Your task to perform on an android device: install app "Pluto TV - Live TV and Movies" Image 0: 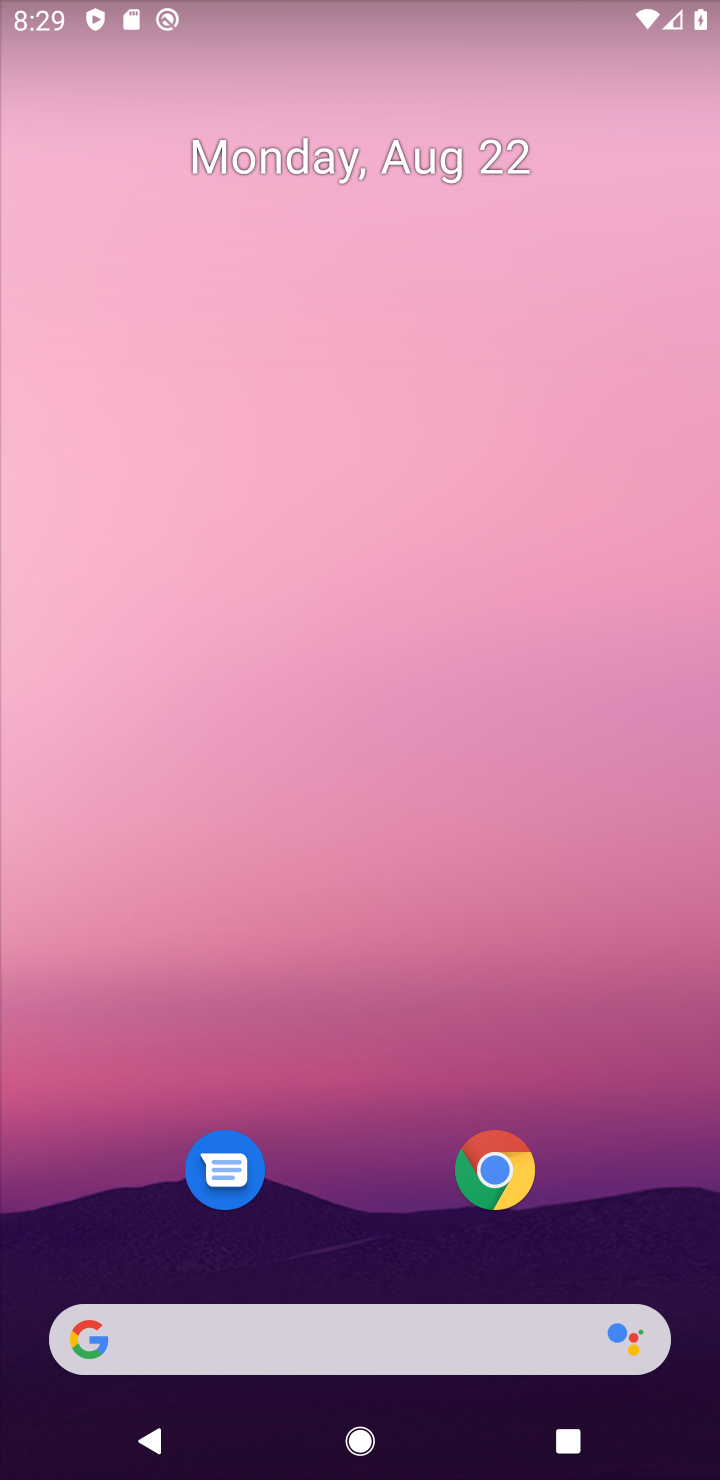
Step 0: drag from (346, 1144) to (487, 49)
Your task to perform on an android device: install app "Pluto TV - Live TV and Movies" Image 1: 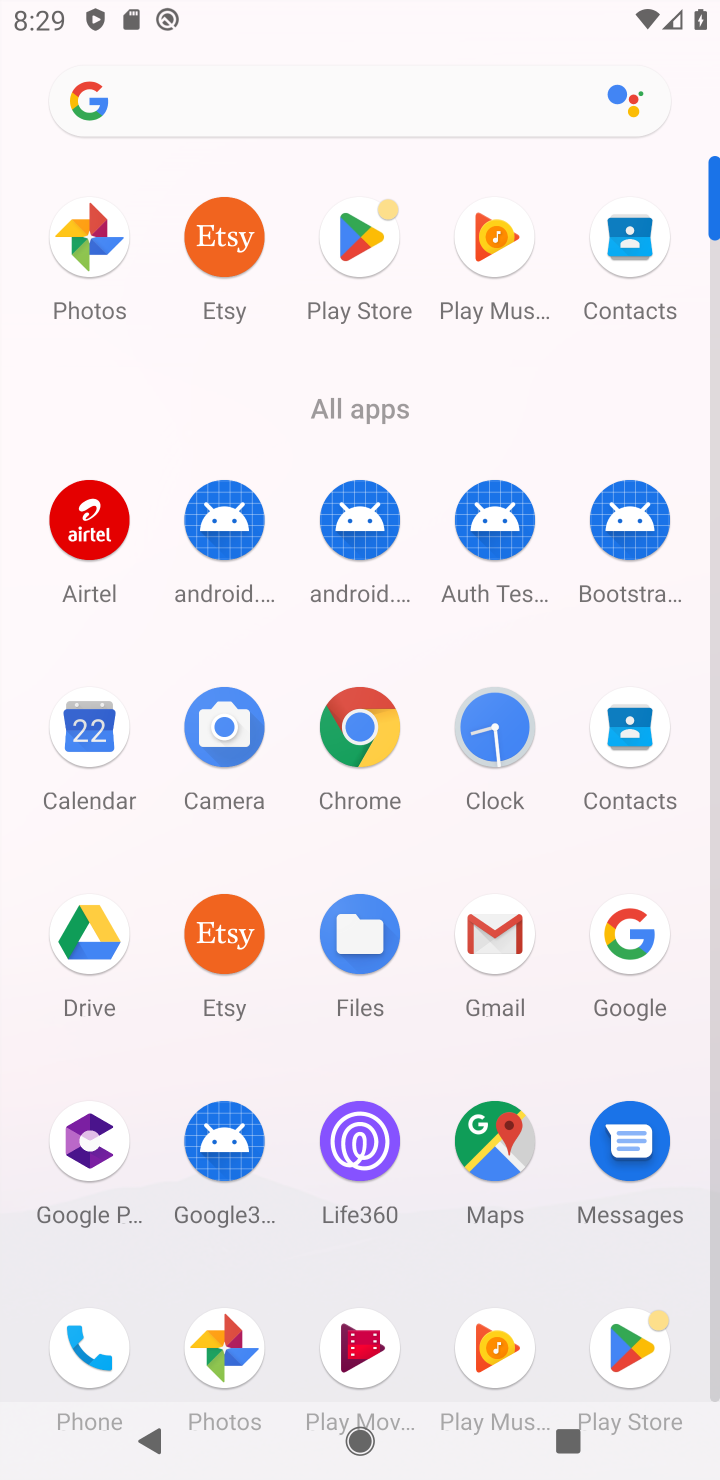
Step 1: click (363, 240)
Your task to perform on an android device: install app "Pluto TV - Live TV and Movies" Image 2: 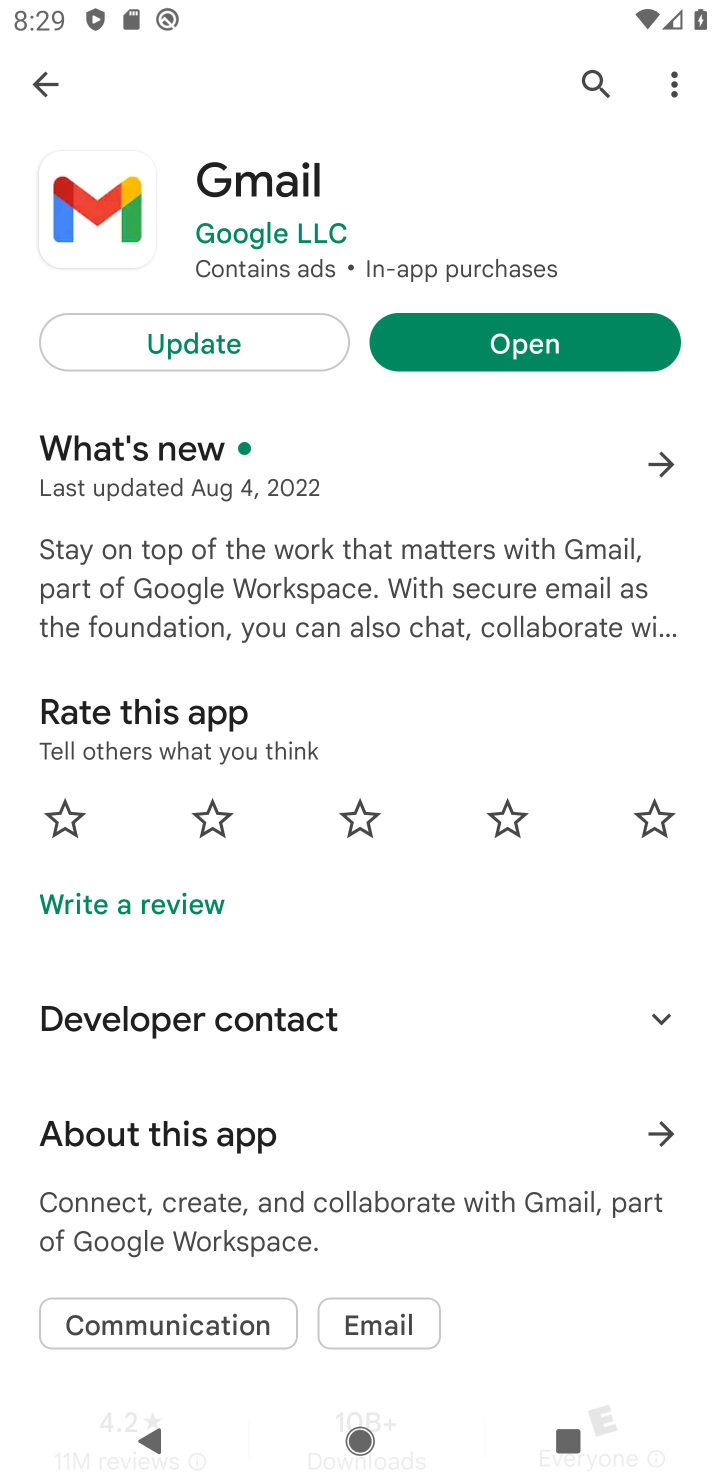
Step 2: click (591, 73)
Your task to perform on an android device: install app "Pluto TV - Live TV and Movies" Image 3: 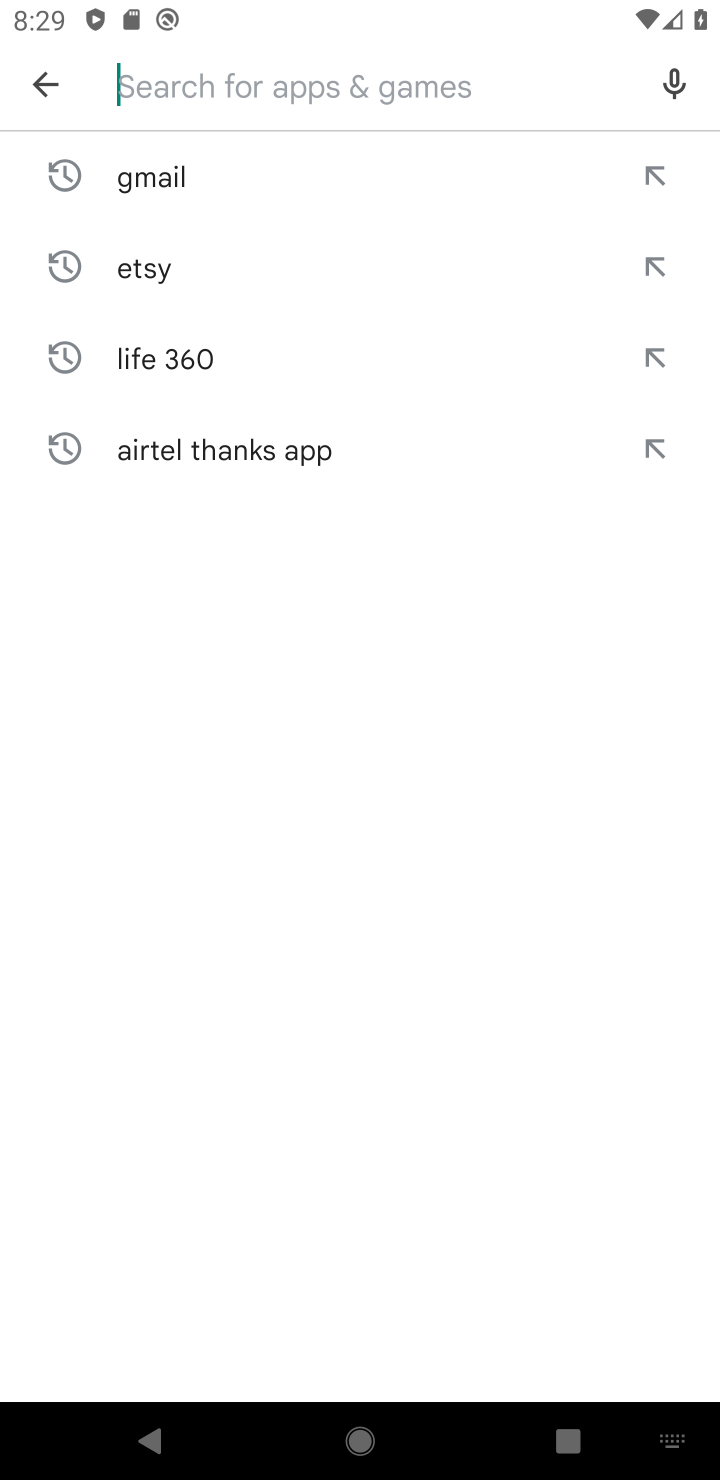
Step 3: click (227, 85)
Your task to perform on an android device: install app "Pluto TV - Live TV and Movies" Image 4: 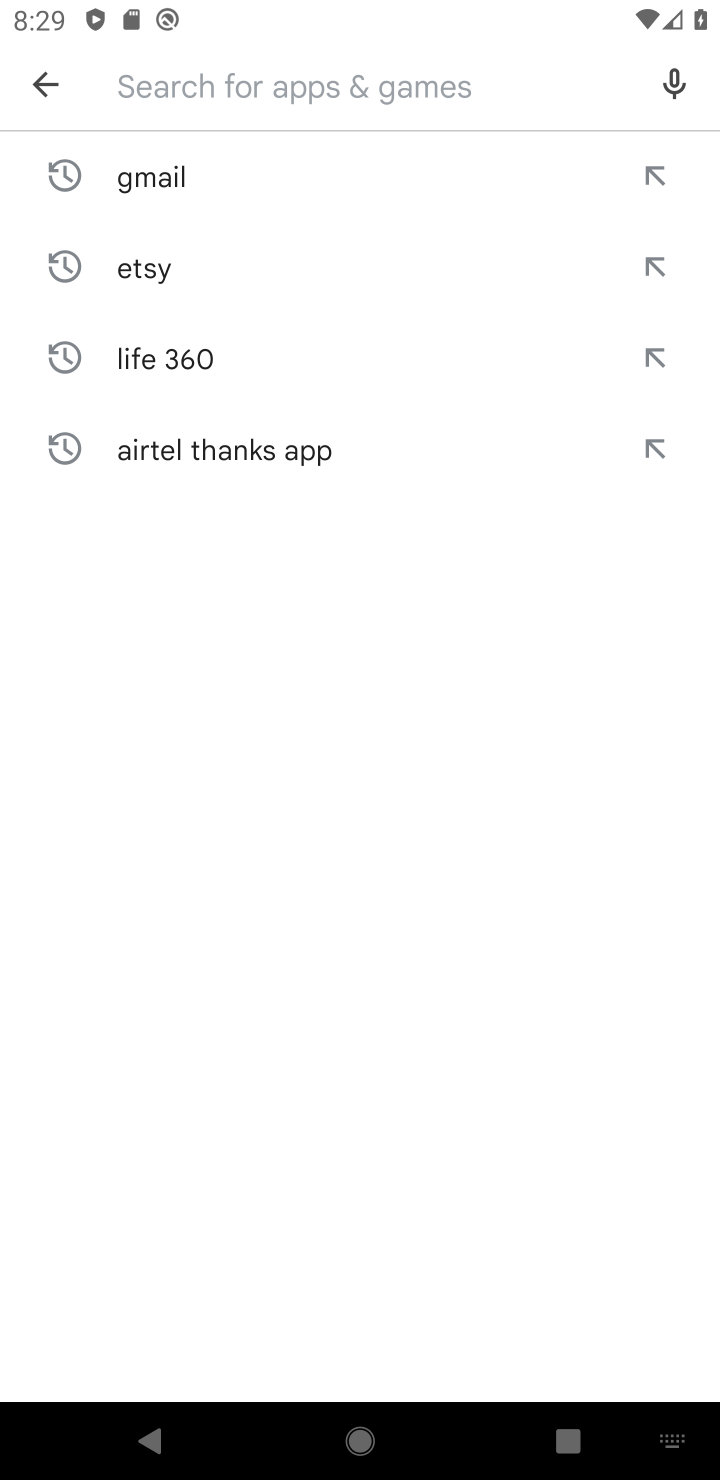
Step 4: click (187, 75)
Your task to perform on an android device: install app "Pluto TV - Live TV and Movies" Image 5: 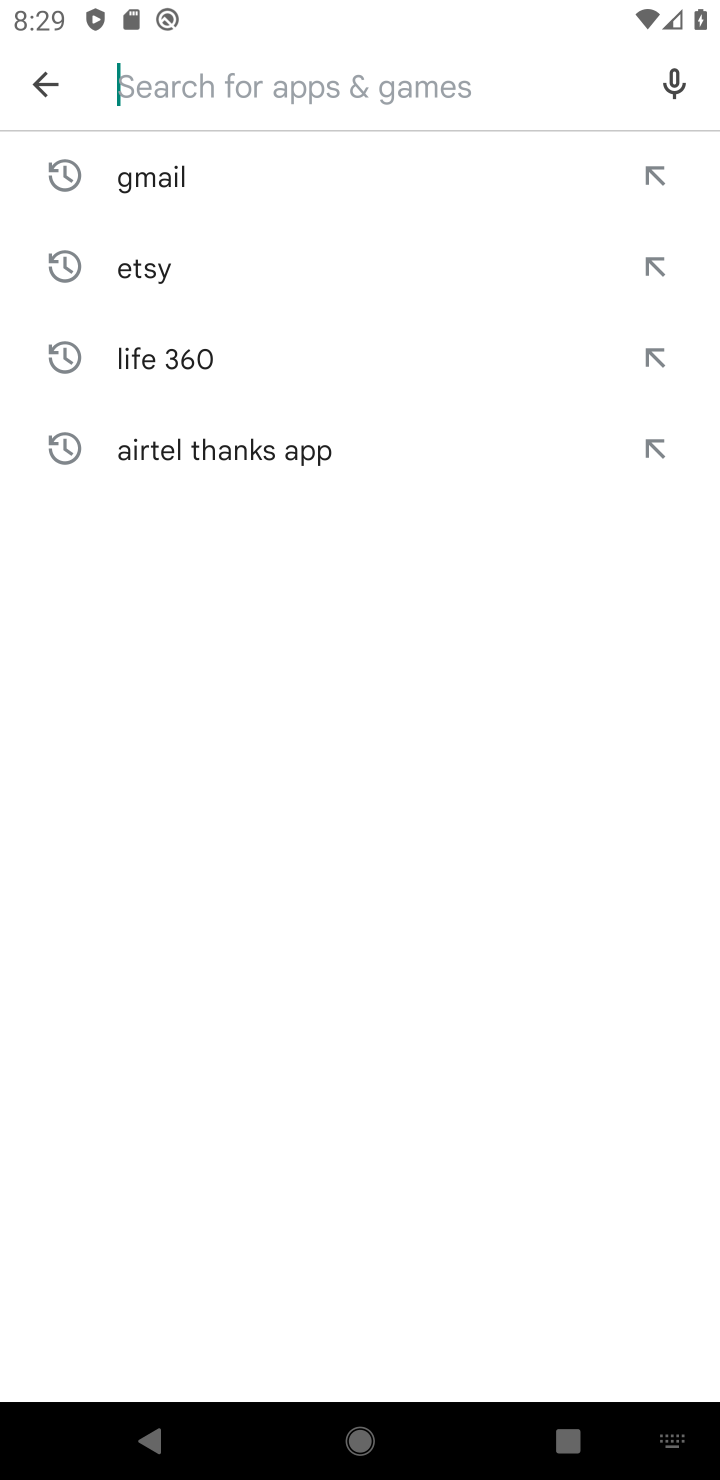
Step 5: type "Pluto TV"
Your task to perform on an android device: install app "Pluto TV - Live TV and Movies" Image 6: 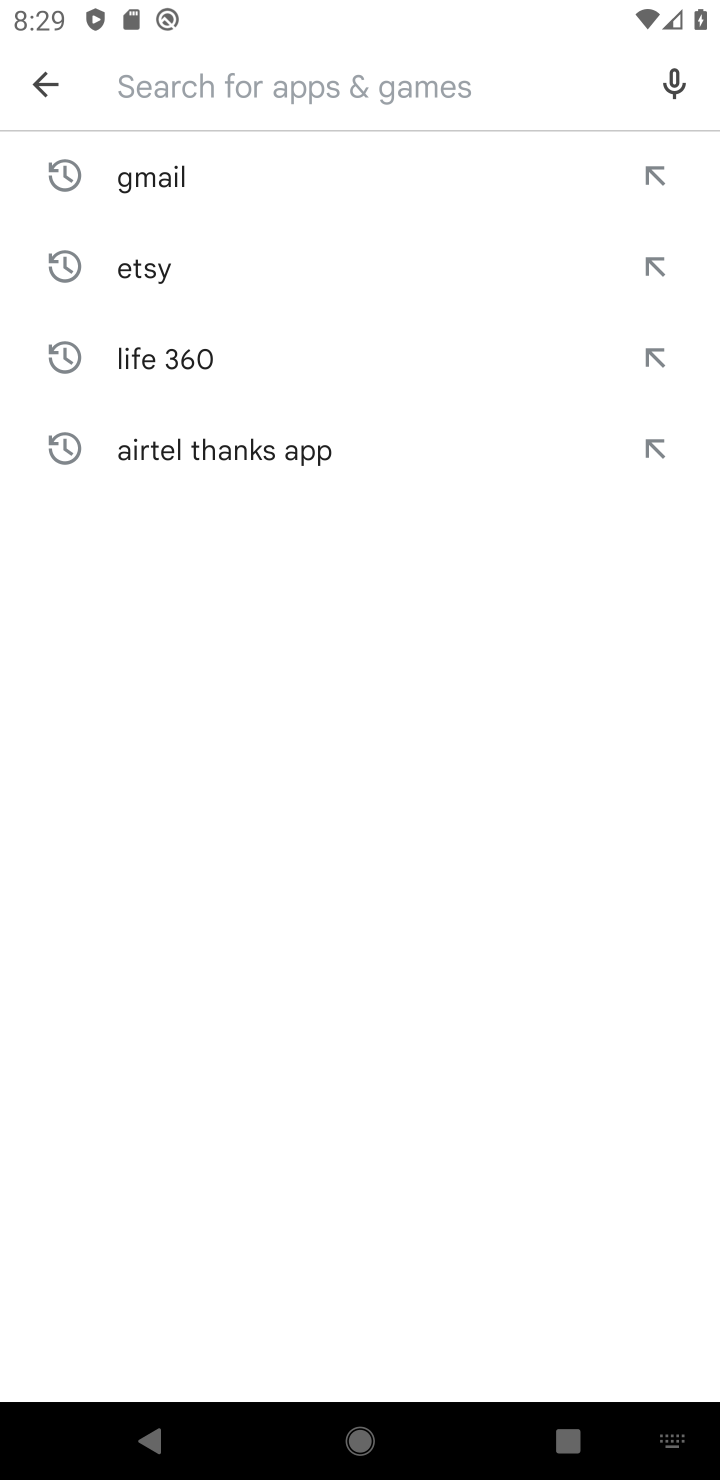
Step 6: click (357, 1013)
Your task to perform on an android device: install app "Pluto TV - Live TV and Movies" Image 7: 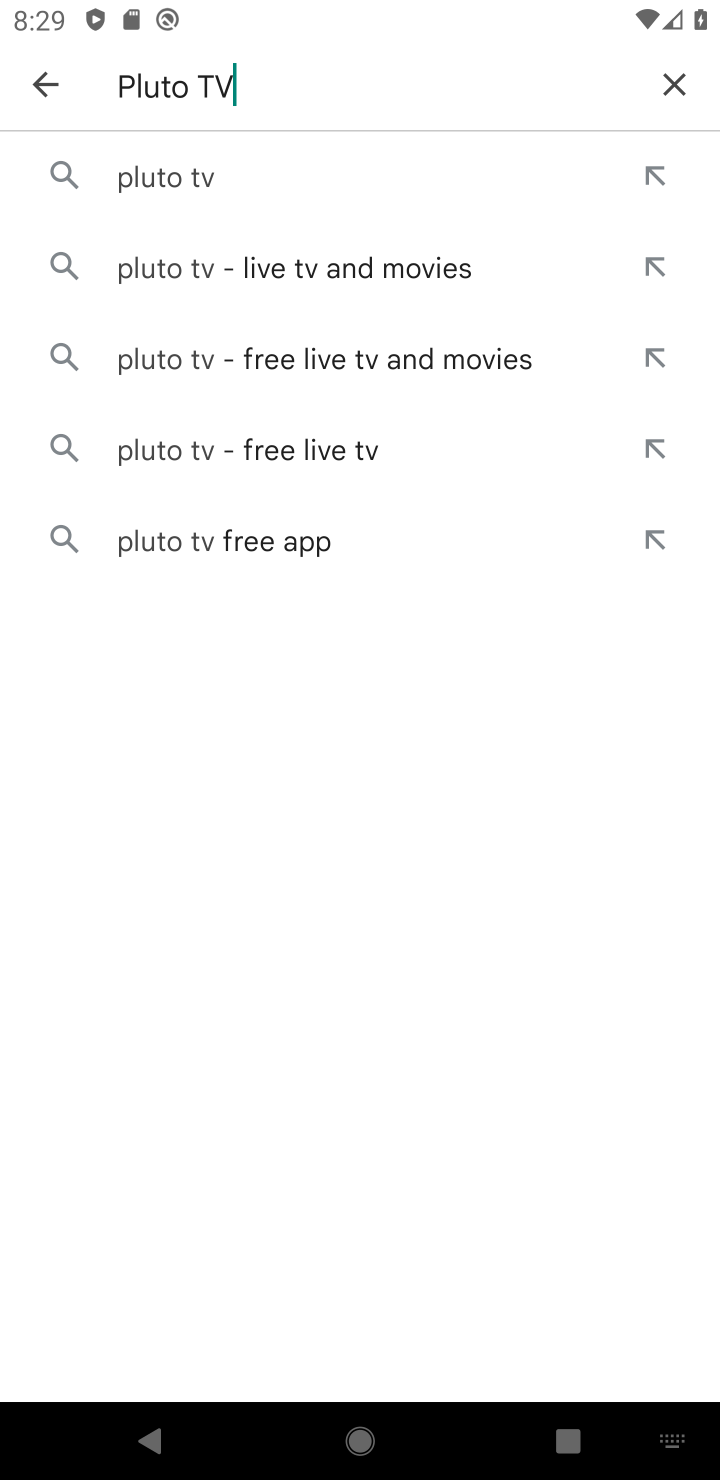
Step 7: click (176, 179)
Your task to perform on an android device: install app "Pluto TV - Live TV and Movies" Image 8: 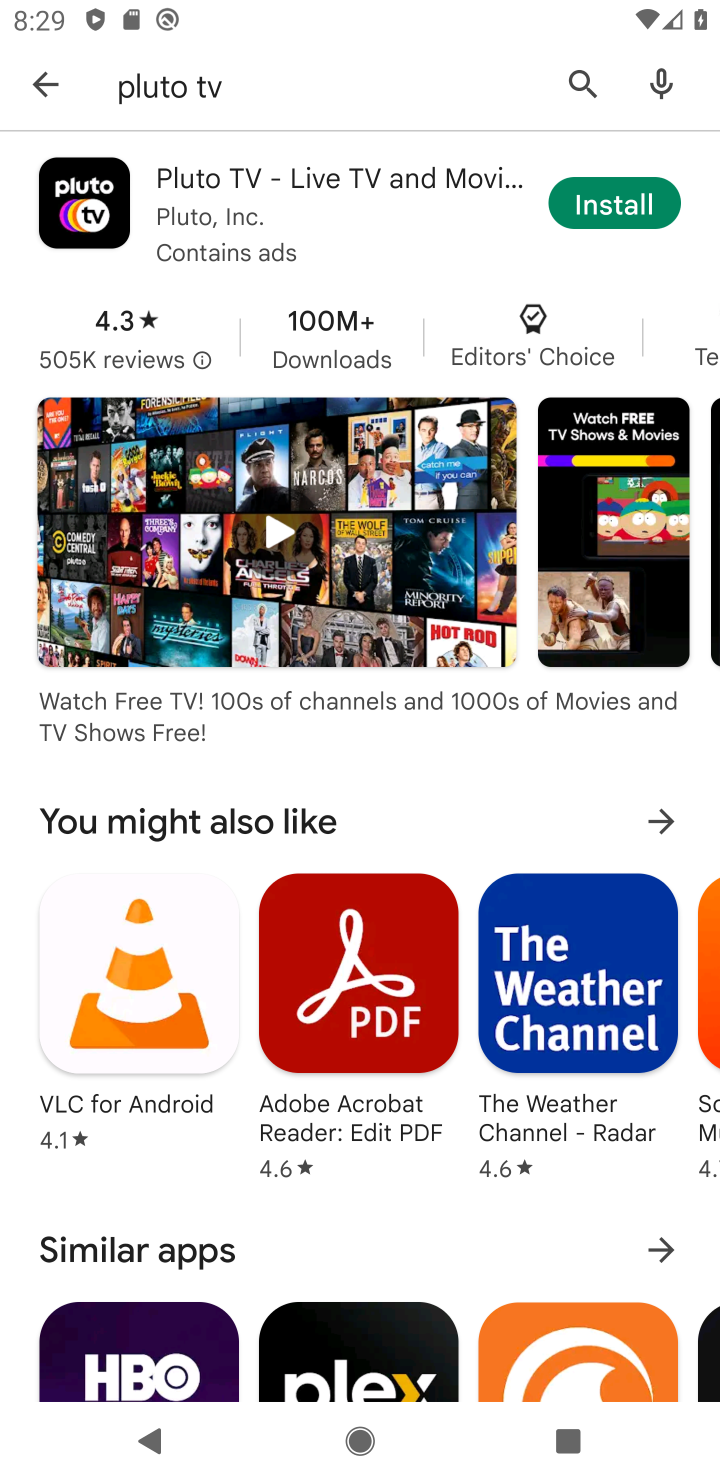
Step 8: click (602, 201)
Your task to perform on an android device: install app "Pluto TV - Live TV and Movies" Image 9: 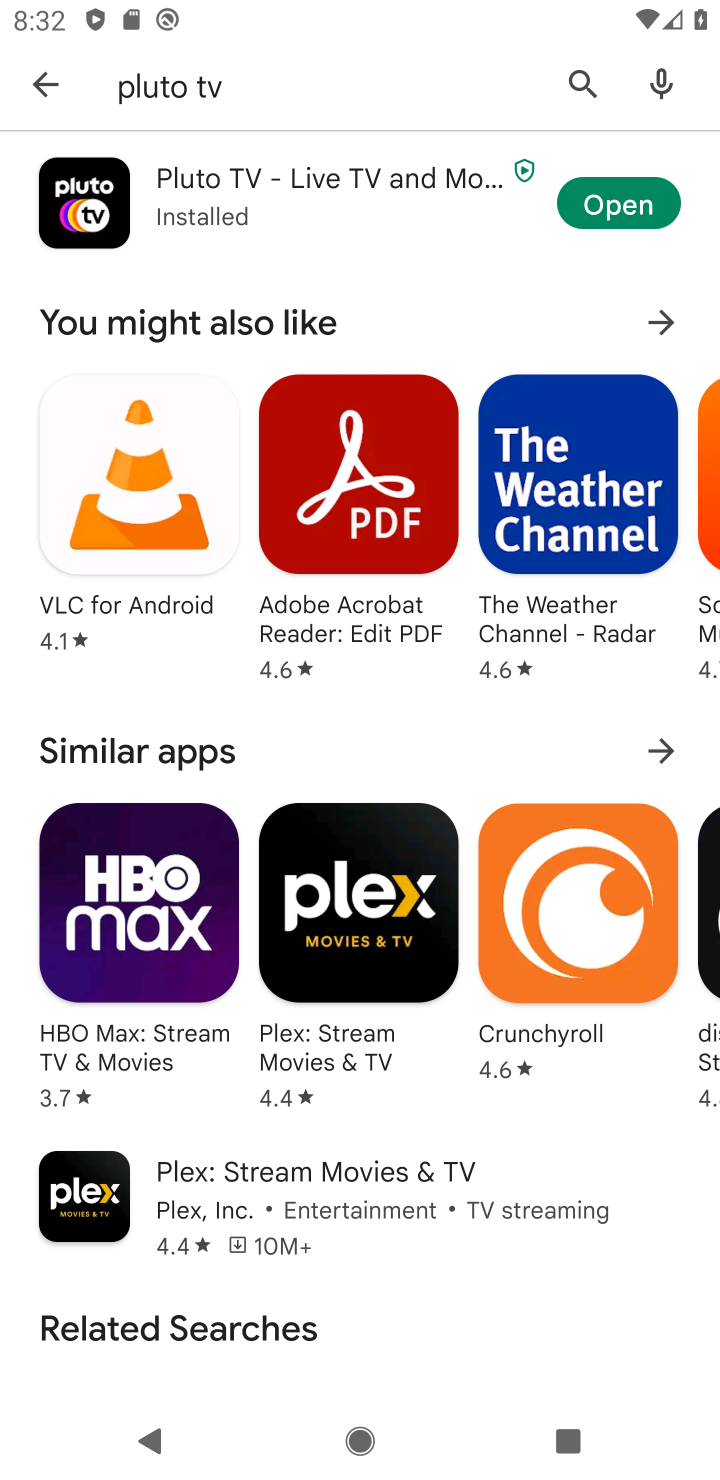
Step 9: task complete